Your task to perform on an android device: Google the capital of the United States Image 0: 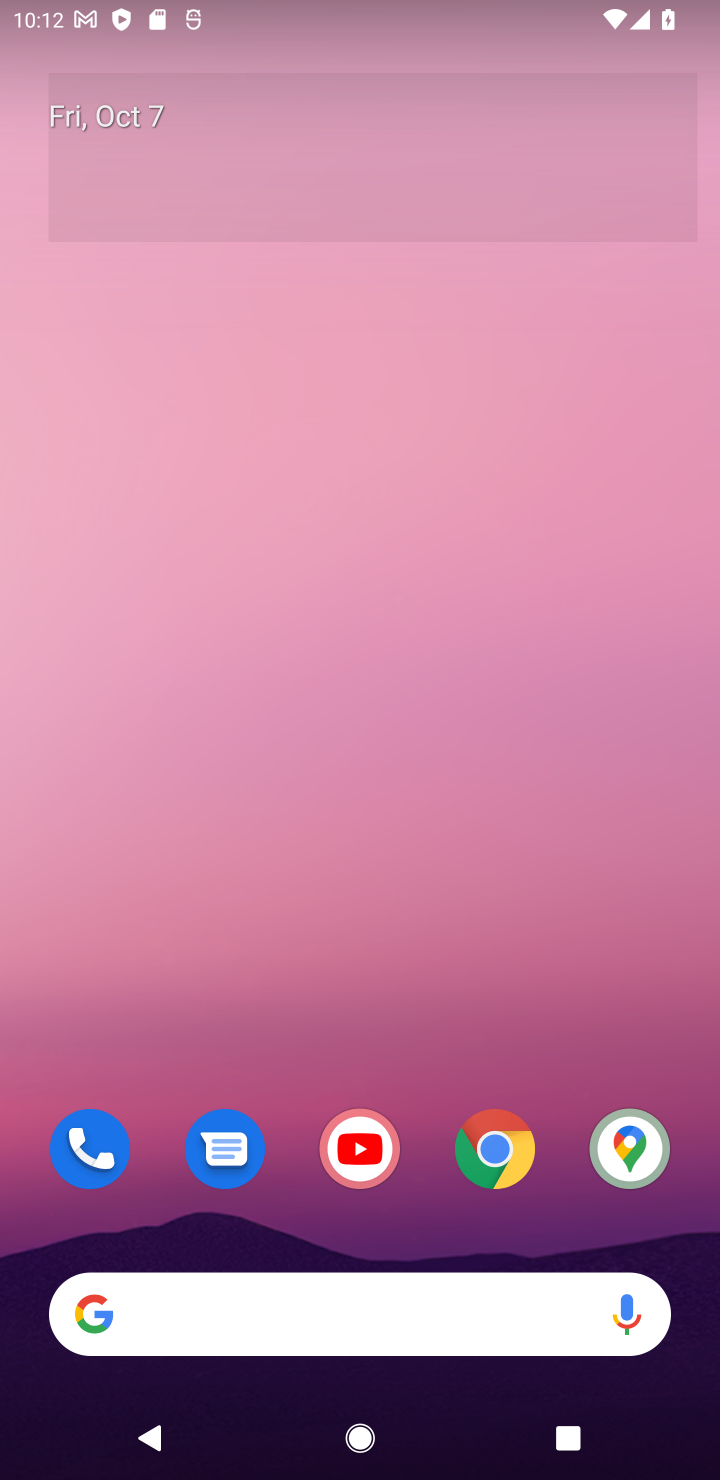
Step 0: click (537, 1296)
Your task to perform on an android device: Google the capital of the United States Image 1: 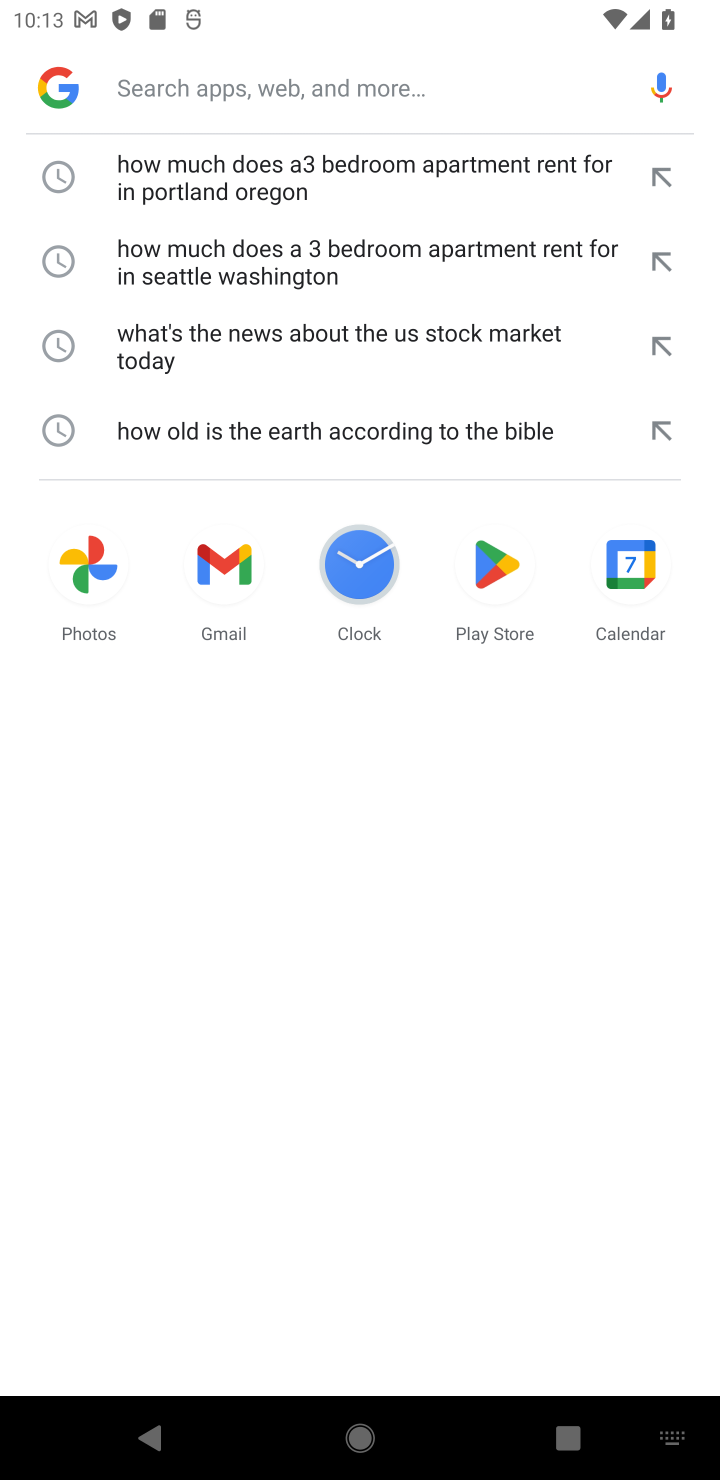
Step 1: type "Google the capital of the United States"
Your task to perform on an android device: Google the capital of the United States Image 2: 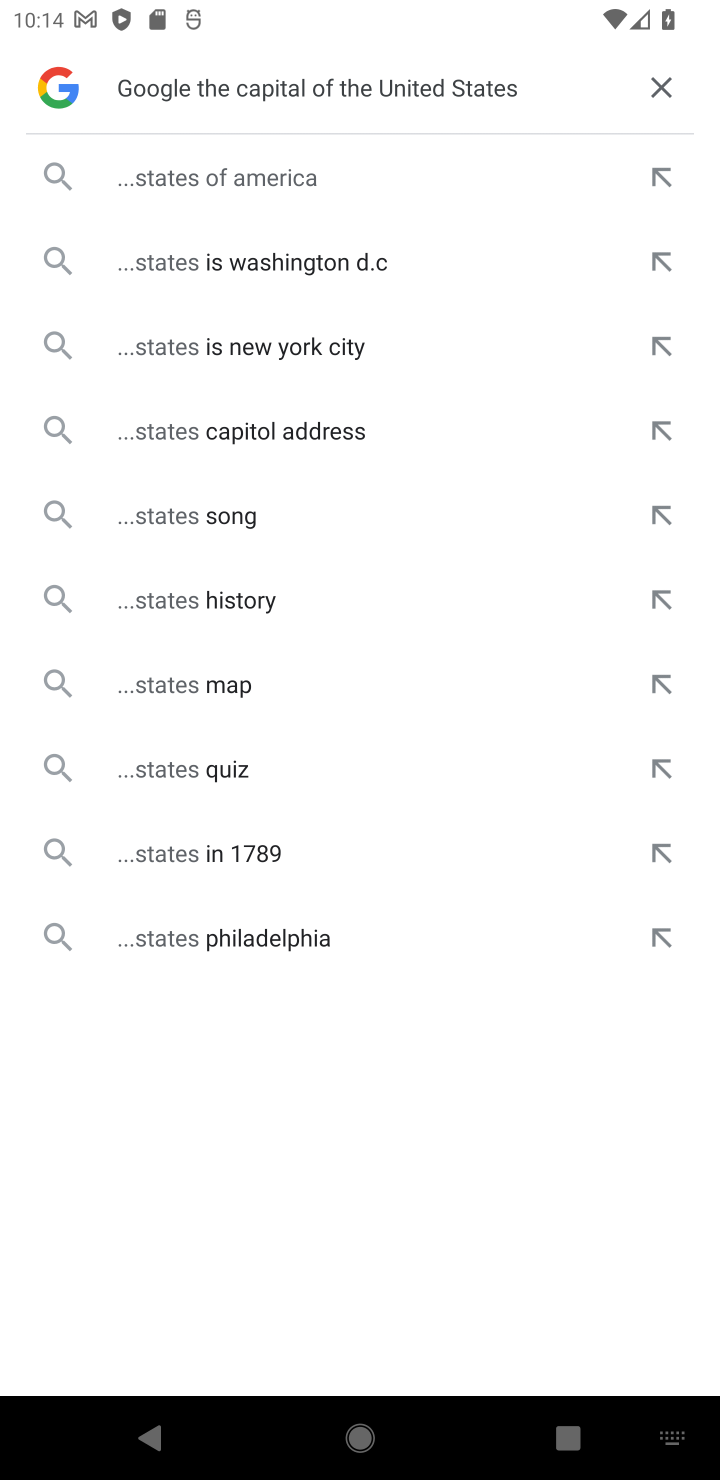
Step 2: click (311, 191)
Your task to perform on an android device: Google the capital of the United States Image 3: 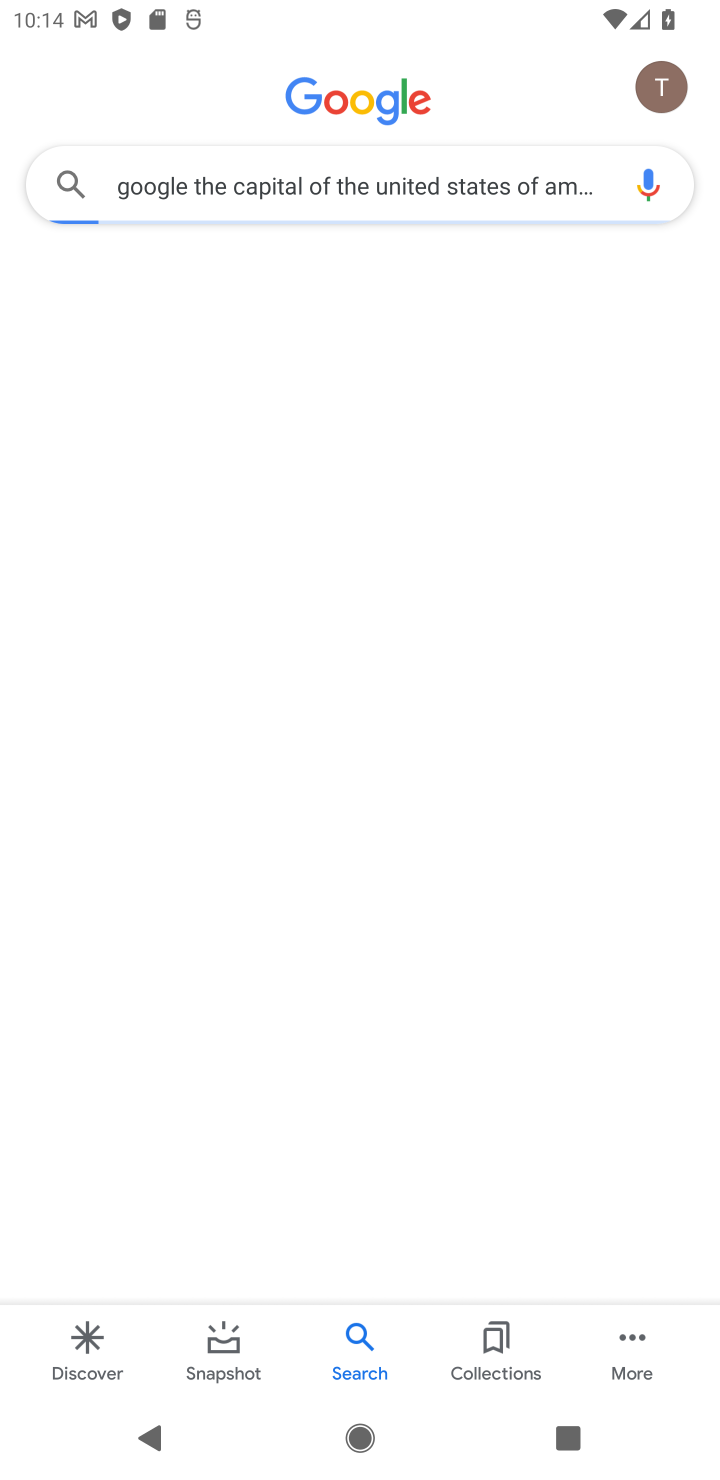
Step 3: task complete